Your task to perform on an android device: Open ESPN.com Image 0: 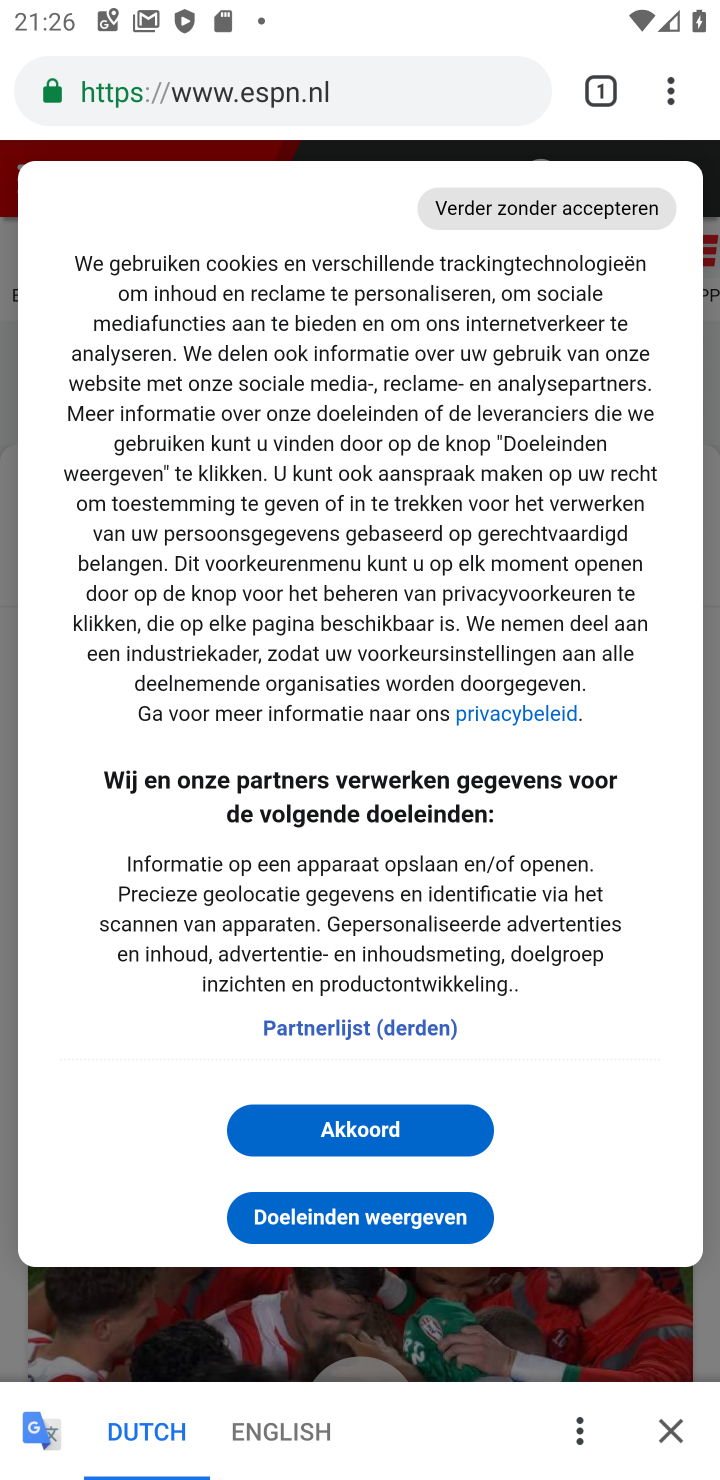
Step 0: task complete